Your task to perform on an android device: Open Chrome and go to settings Image 0: 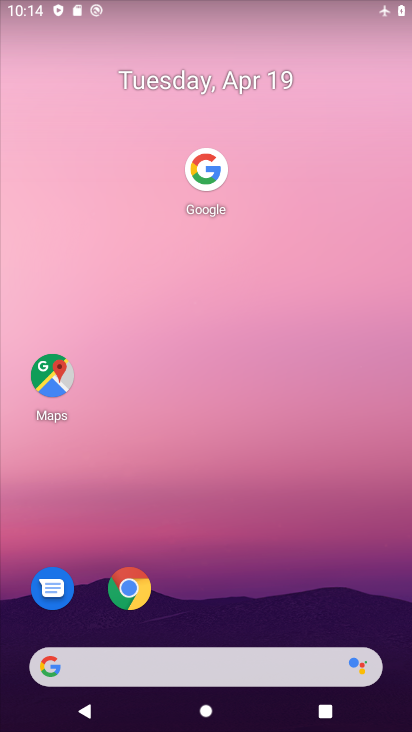
Step 0: click (129, 591)
Your task to perform on an android device: Open Chrome and go to settings Image 1: 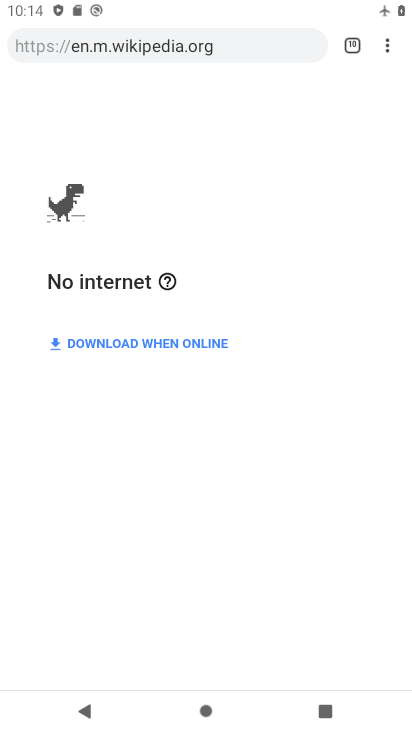
Step 1: click (385, 41)
Your task to perform on an android device: Open Chrome and go to settings Image 2: 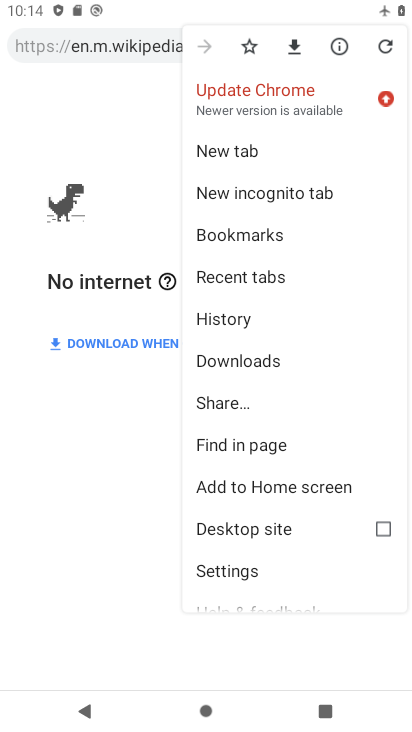
Step 2: click (226, 570)
Your task to perform on an android device: Open Chrome and go to settings Image 3: 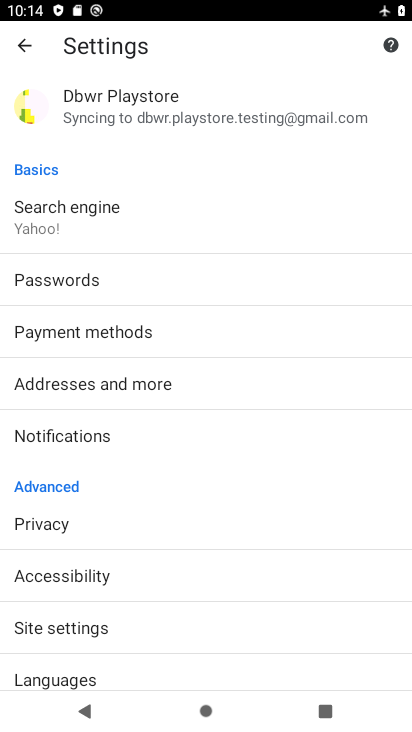
Step 3: task complete